Your task to perform on an android device: Open Chrome and go to the settings page Image 0: 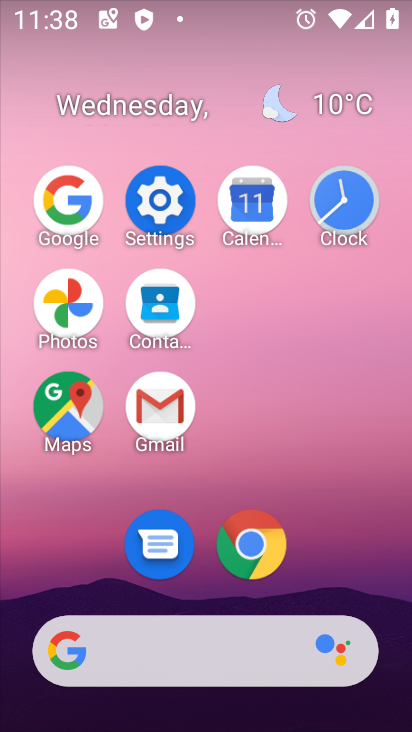
Step 0: click (241, 568)
Your task to perform on an android device: Open Chrome and go to the settings page Image 1: 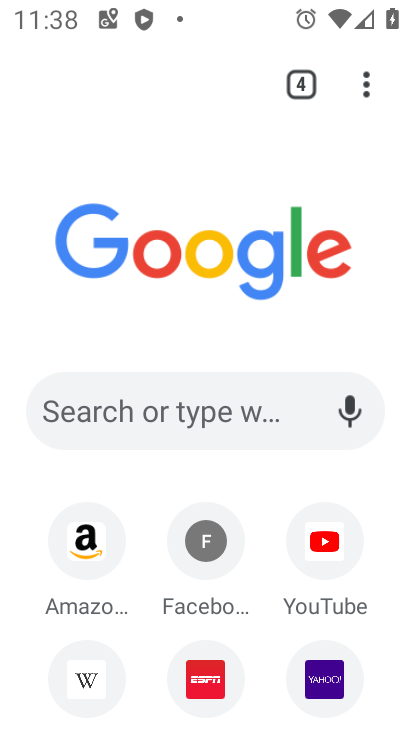
Step 1: click (368, 71)
Your task to perform on an android device: Open Chrome and go to the settings page Image 2: 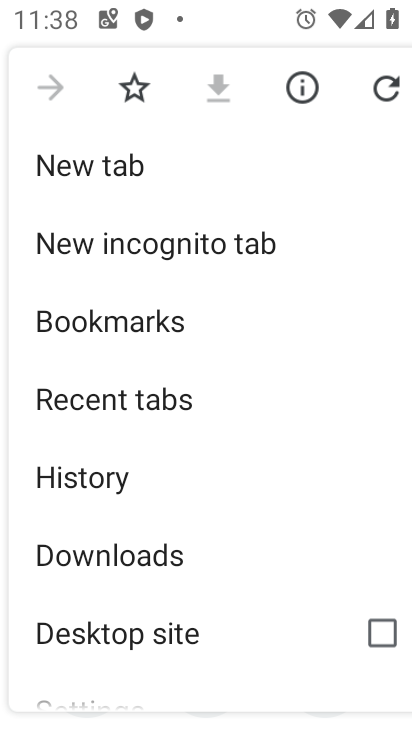
Step 2: drag from (193, 586) to (222, 227)
Your task to perform on an android device: Open Chrome and go to the settings page Image 3: 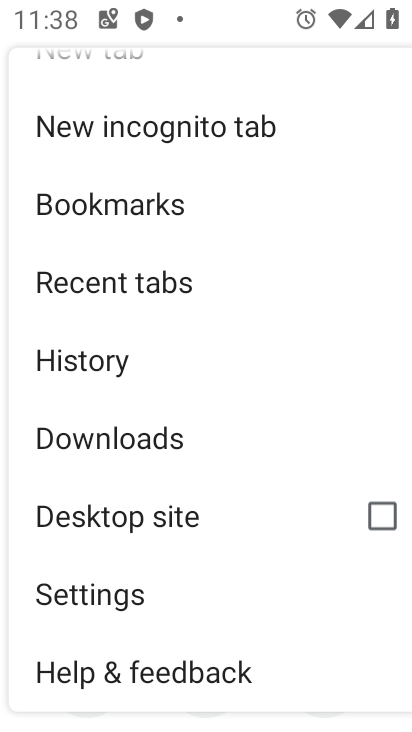
Step 3: click (115, 579)
Your task to perform on an android device: Open Chrome and go to the settings page Image 4: 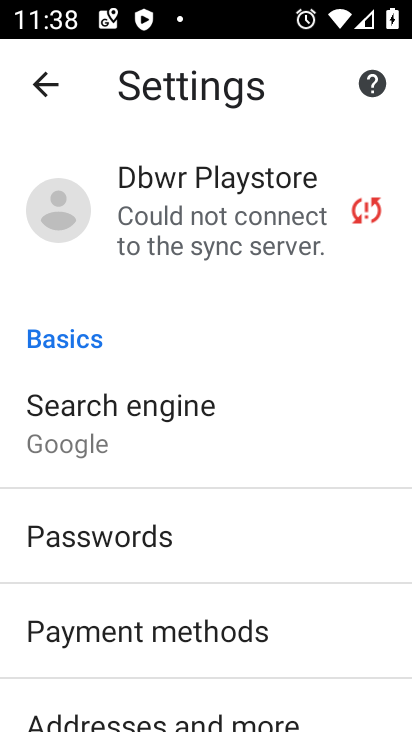
Step 4: task complete